Your task to perform on an android device: open a bookmark in the chrome app Image 0: 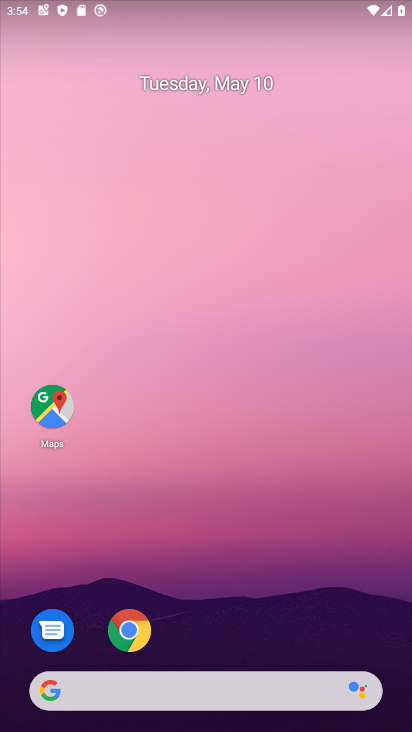
Step 0: click (150, 622)
Your task to perform on an android device: open a bookmark in the chrome app Image 1: 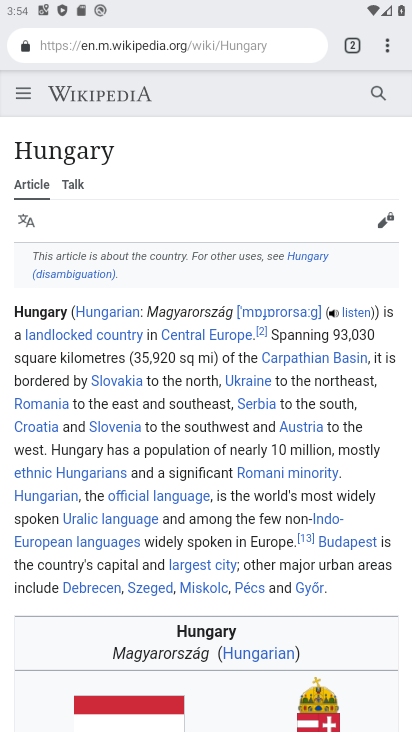
Step 1: click (397, 38)
Your task to perform on an android device: open a bookmark in the chrome app Image 2: 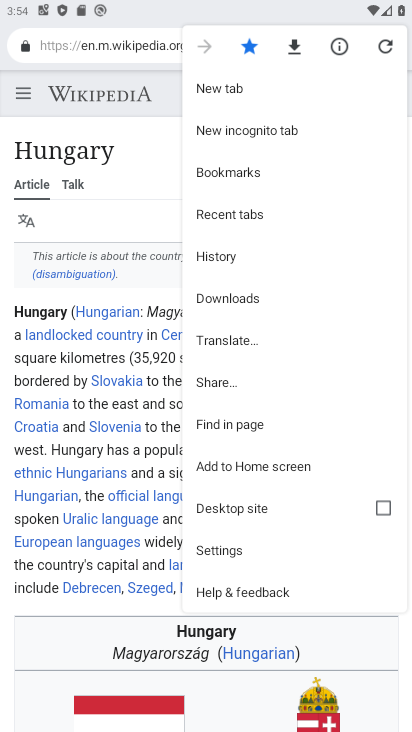
Step 2: click (230, 186)
Your task to perform on an android device: open a bookmark in the chrome app Image 3: 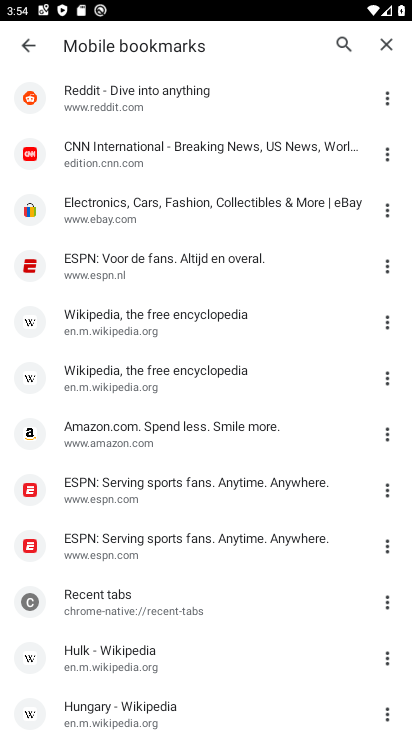
Step 3: click (96, 653)
Your task to perform on an android device: open a bookmark in the chrome app Image 4: 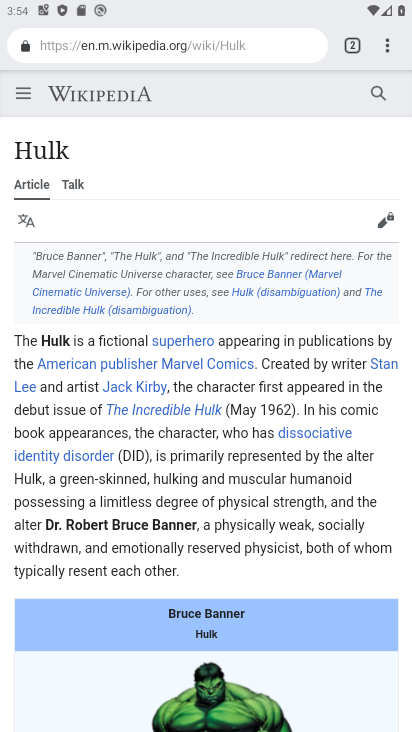
Step 4: task complete